Your task to perform on an android device: refresh tabs in the chrome app Image 0: 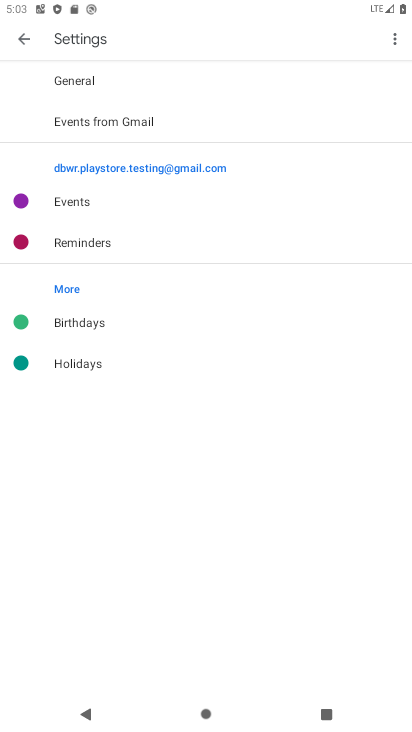
Step 0: press back button
Your task to perform on an android device: refresh tabs in the chrome app Image 1: 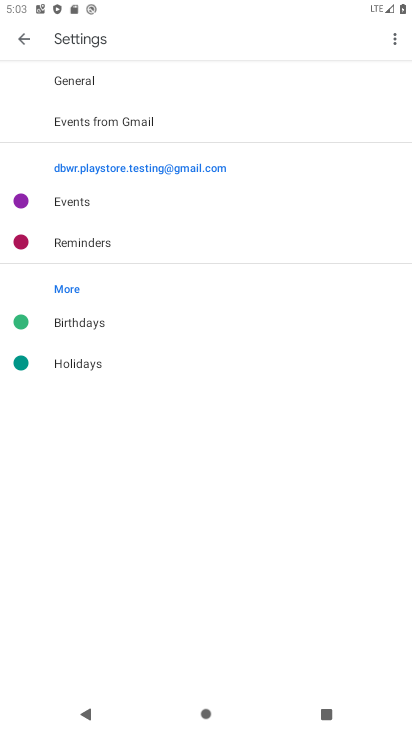
Step 1: press home button
Your task to perform on an android device: refresh tabs in the chrome app Image 2: 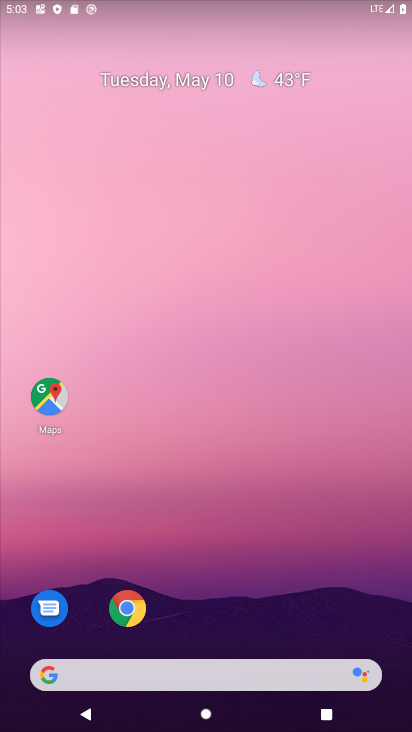
Step 2: click (138, 609)
Your task to perform on an android device: refresh tabs in the chrome app Image 3: 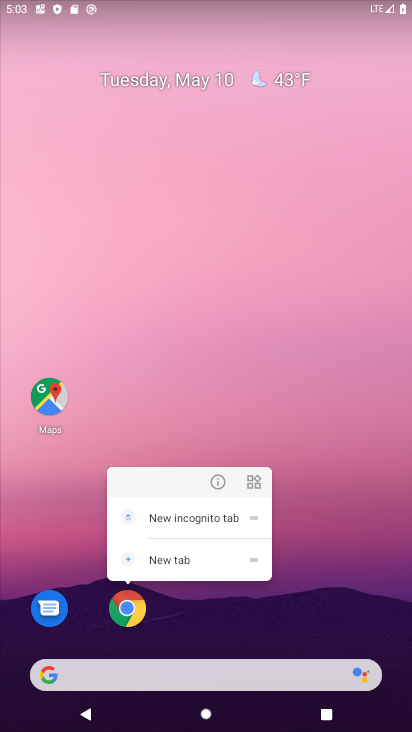
Step 3: click (133, 612)
Your task to perform on an android device: refresh tabs in the chrome app Image 4: 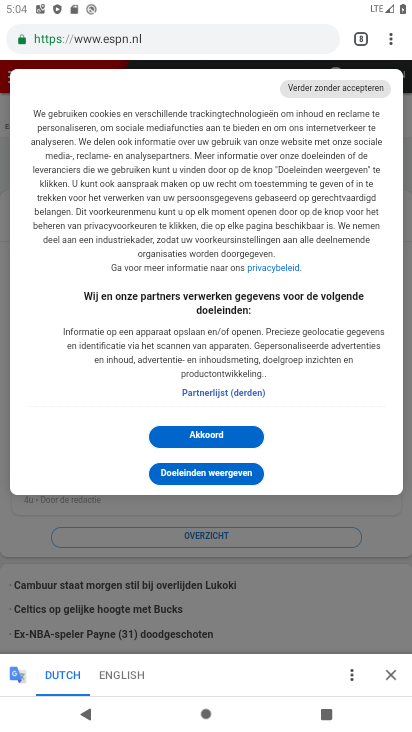
Step 4: click (392, 35)
Your task to perform on an android device: refresh tabs in the chrome app Image 5: 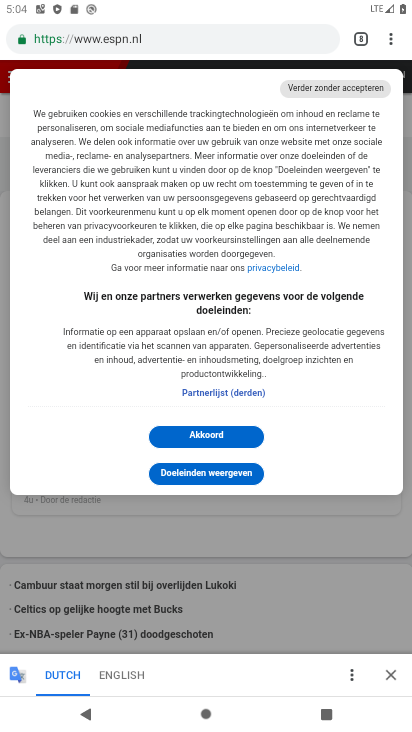
Step 5: task complete